Your task to perform on an android device: Open notification settings Image 0: 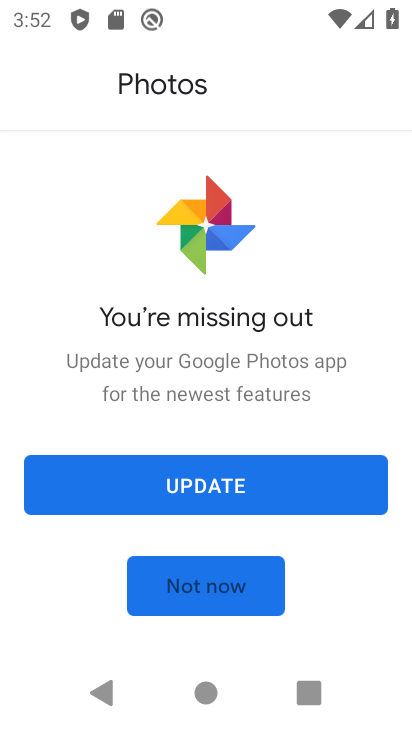
Step 0: press home button
Your task to perform on an android device: Open notification settings Image 1: 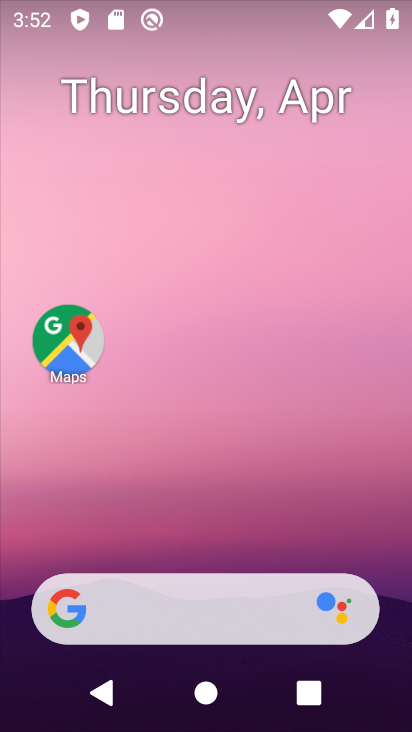
Step 1: drag from (206, 719) to (207, 174)
Your task to perform on an android device: Open notification settings Image 2: 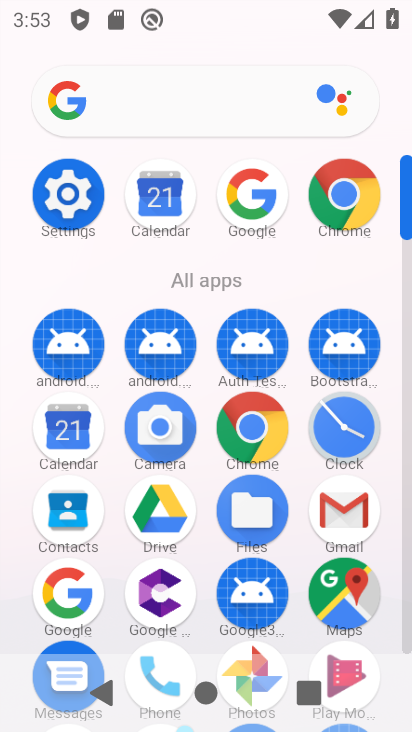
Step 2: click (62, 203)
Your task to perform on an android device: Open notification settings Image 3: 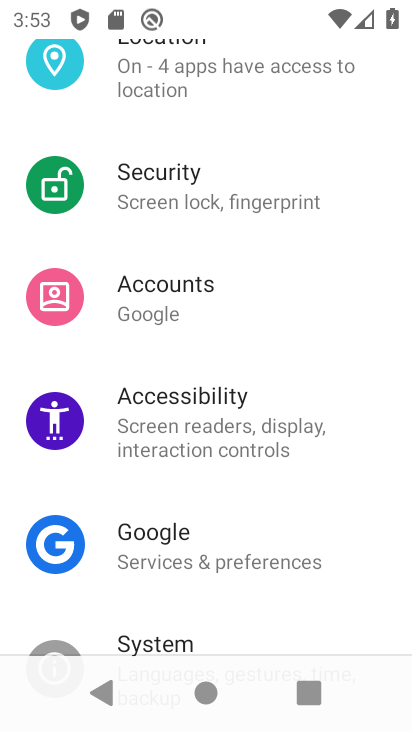
Step 3: drag from (227, 140) to (221, 504)
Your task to perform on an android device: Open notification settings Image 4: 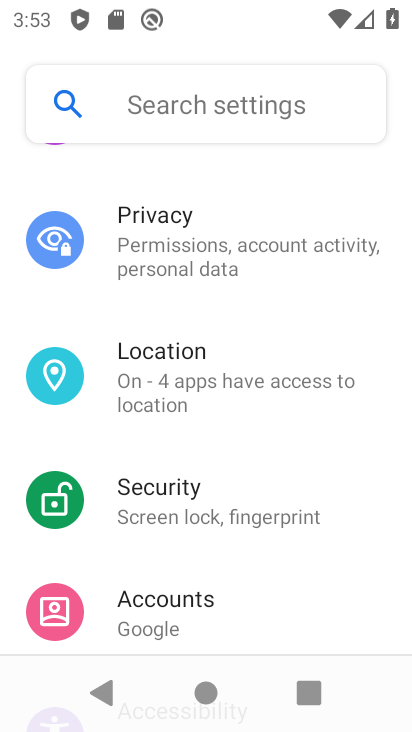
Step 4: drag from (225, 195) to (215, 504)
Your task to perform on an android device: Open notification settings Image 5: 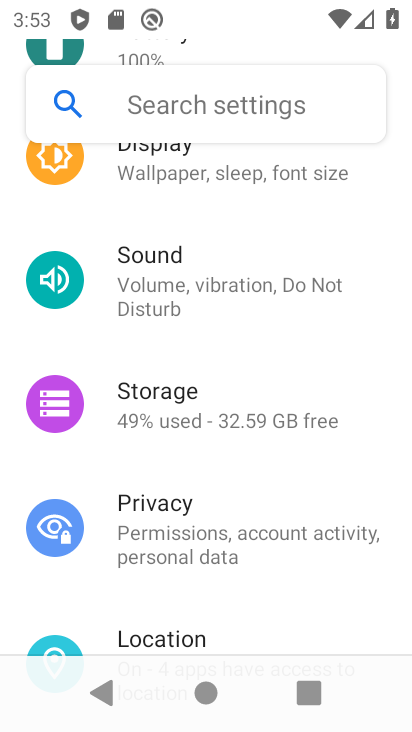
Step 5: drag from (225, 217) to (219, 515)
Your task to perform on an android device: Open notification settings Image 6: 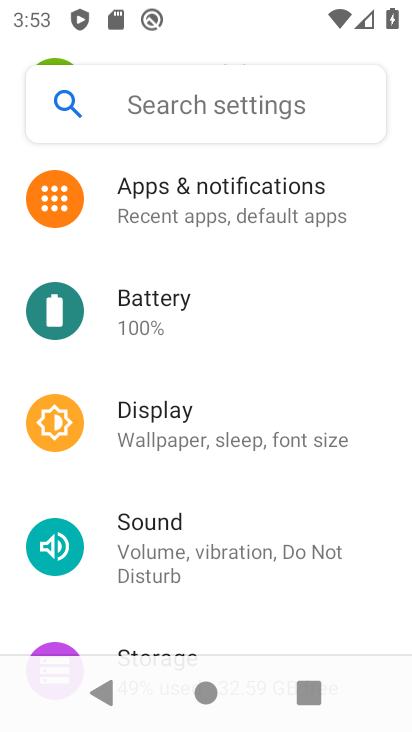
Step 6: click (211, 210)
Your task to perform on an android device: Open notification settings Image 7: 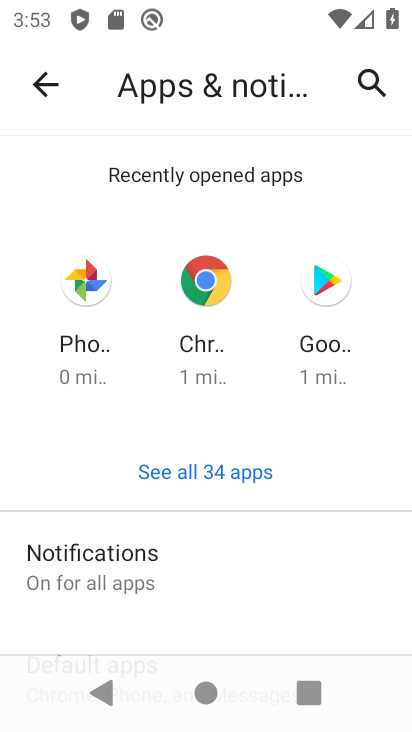
Step 7: click (88, 566)
Your task to perform on an android device: Open notification settings Image 8: 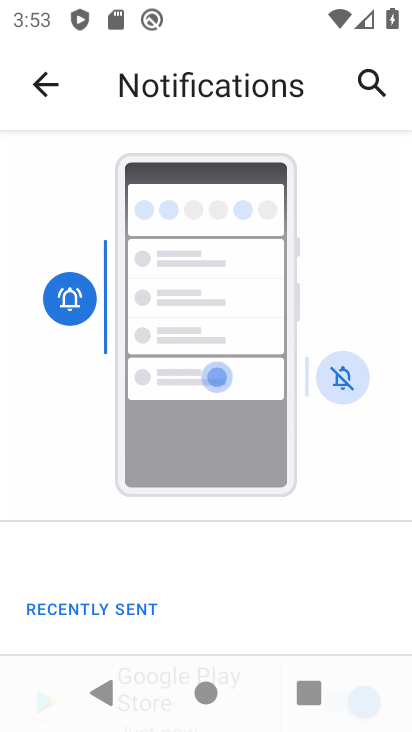
Step 8: task complete